Your task to perform on an android device: change the upload size in google photos Image 0: 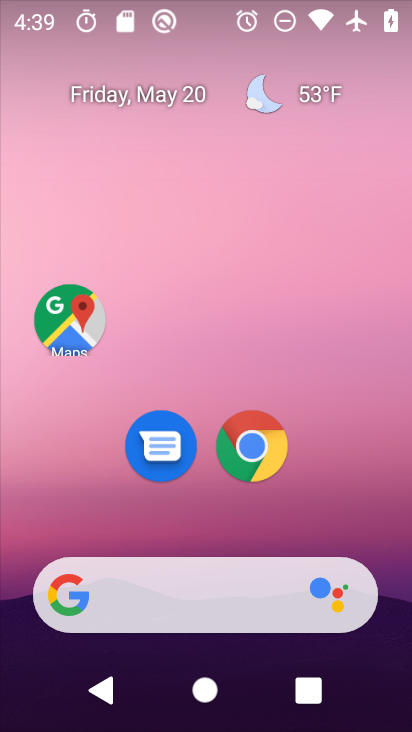
Step 0: drag from (363, 462) to (359, 80)
Your task to perform on an android device: change the upload size in google photos Image 1: 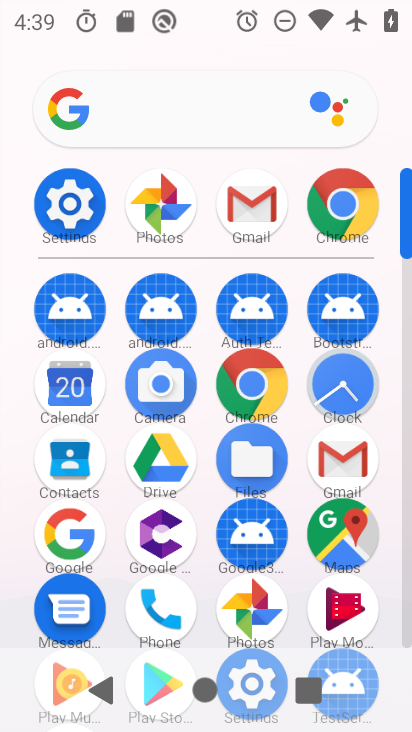
Step 1: click (154, 203)
Your task to perform on an android device: change the upload size in google photos Image 2: 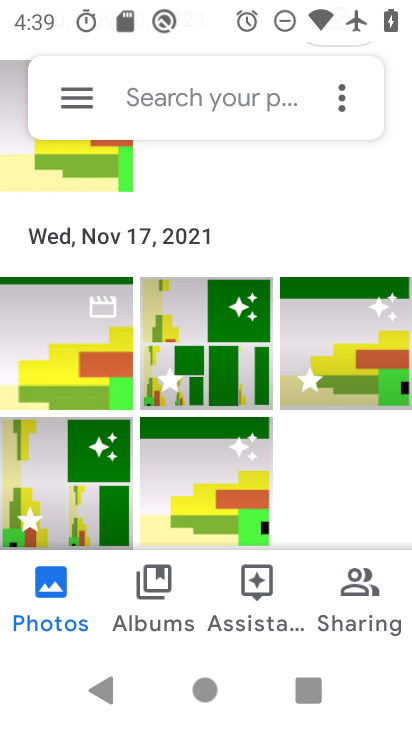
Step 2: click (74, 80)
Your task to perform on an android device: change the upload size in google photos Image 3: 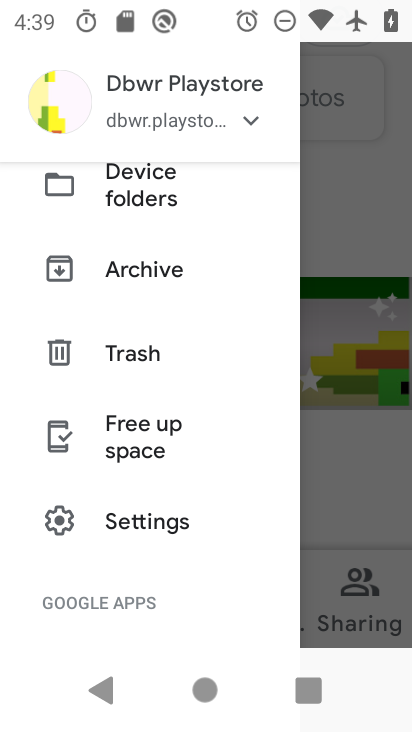
Step 3: drag from (143, 169) to (148, 534)
Your task to perform on an android device: change the upload size in google photos Image 4: 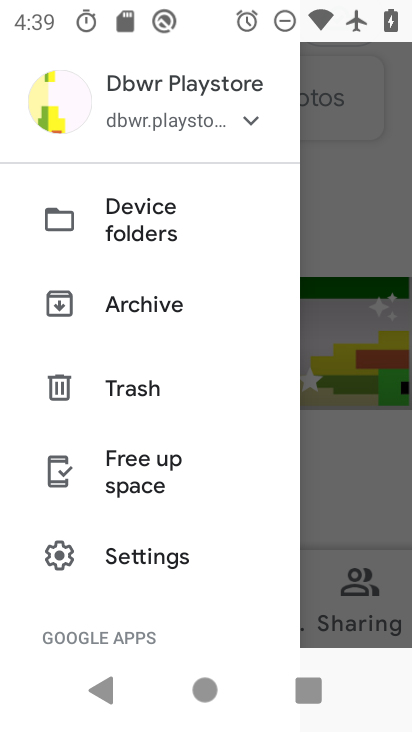
Step 4: click (128, 539)
Your task to perform on an android device: change the upload size in google photos Image 5: 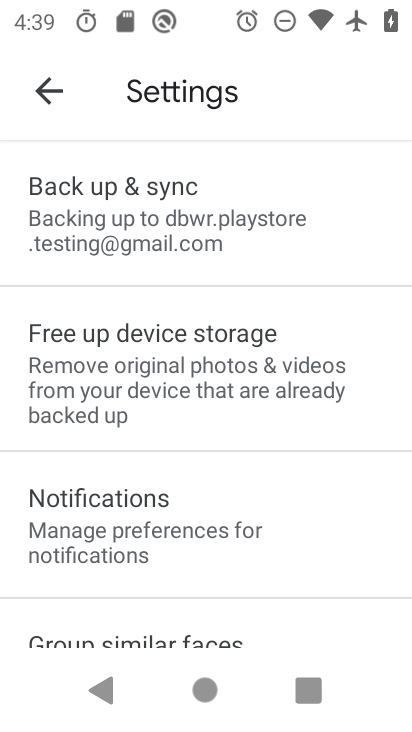
Step 5: click (65, 213)
Your task to perform on an android device: change the upload size in google photos Image 6: 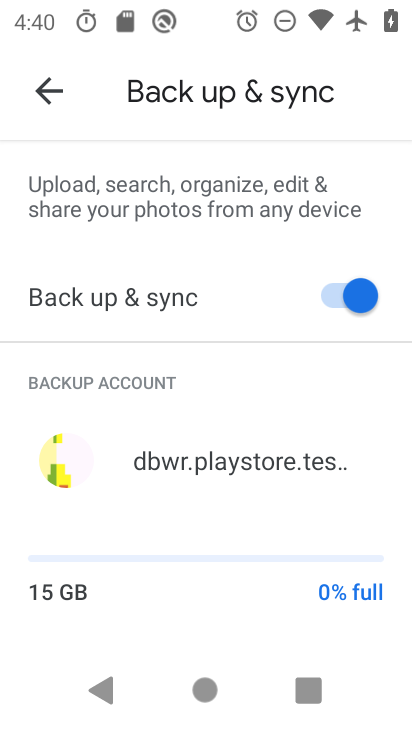
Step 6: drag from (186, 425) to (172, 121)
Your task to perform on an android device: change the upload size in google photos Image 7: 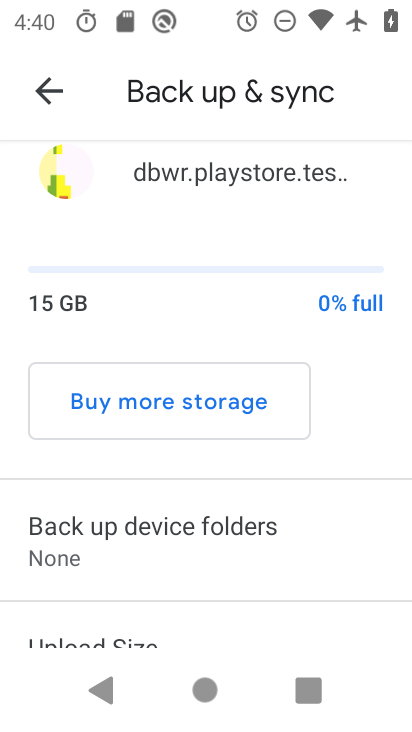
Step 7: drag from (142, 545) to (142, 181)
Your task to perform on an android device: change the upload size in google photos Image 8: 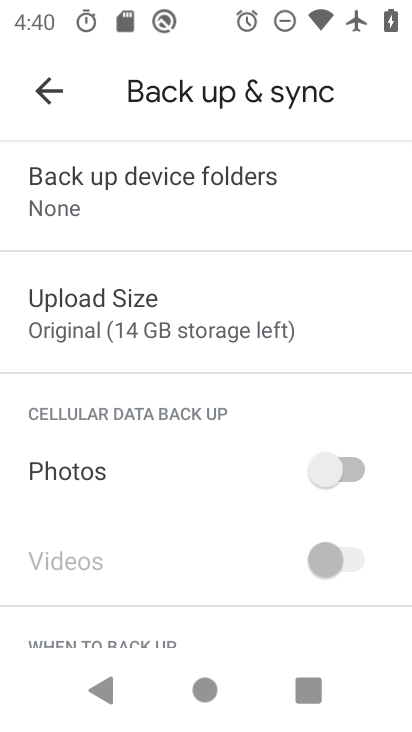
Step 8: click (111, 326)
Your task to perform on an android device: change the upload size in google photos Image 9: 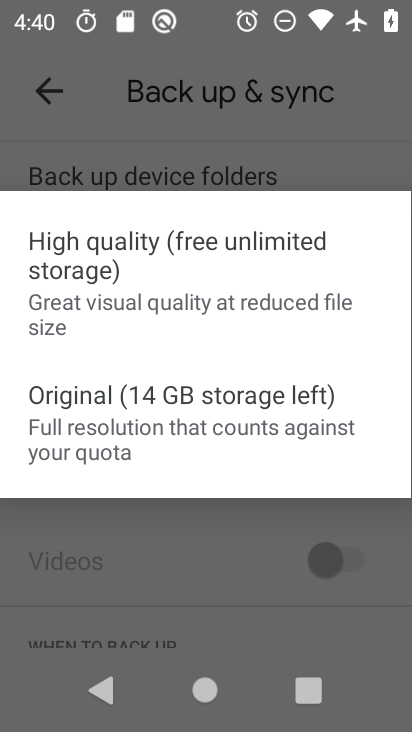
Step 9: click (90, 401)
Your task to perform on an android device: change the upload size in google photos Image 10: 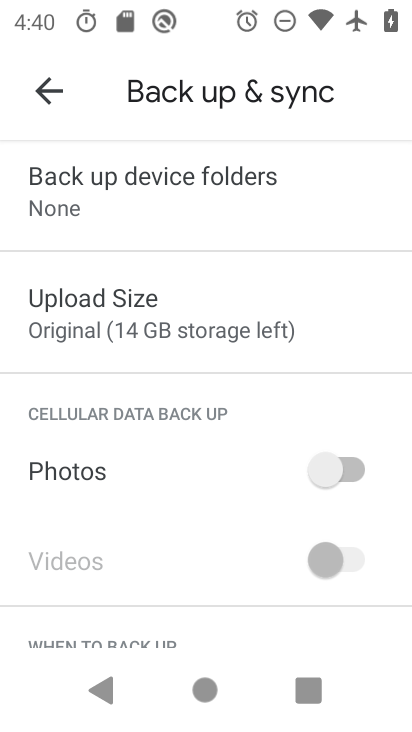
Step 10: task complete